Your task to perform on an android device: Go to calendar. Show me events next week Image 0: 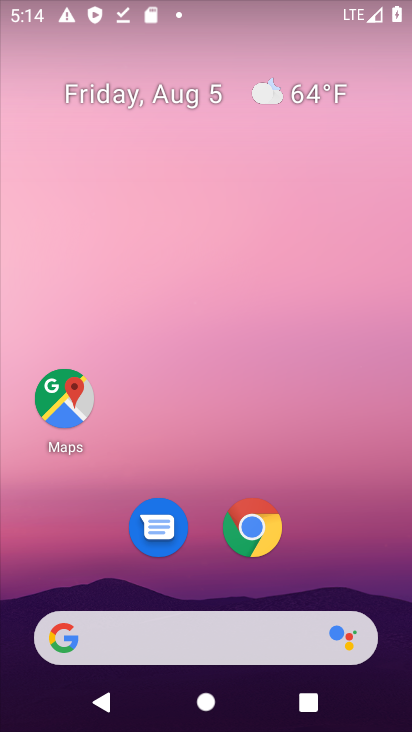
Step 0: drag from (210, 565) to (252, 144)
Your task to perform on an android device: Go to calendar. Show me events next week Image 1: 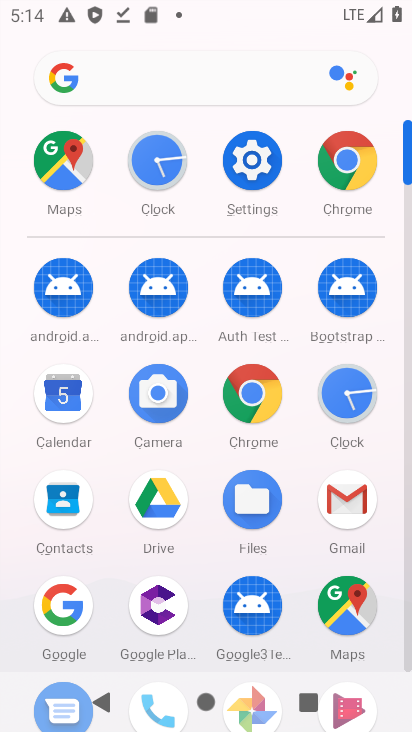
Step 1: click (64, 395)
Your task to perform on an android device: Go to calendar. Show me events next week Image 2: 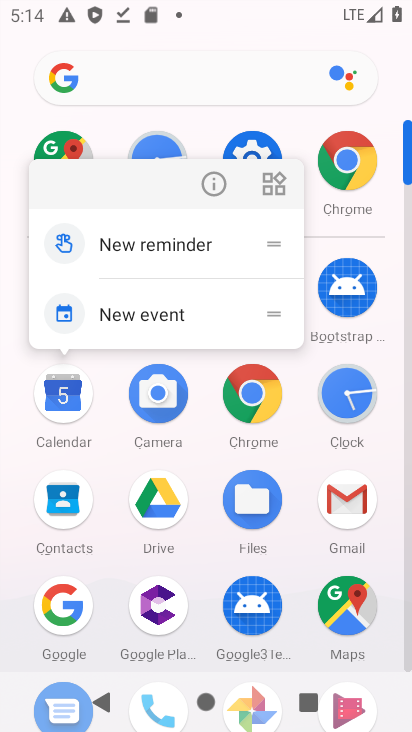
Step 2: click (192, 199)
Your task to perform on an android device: Go to calendar. Show me events next week Image 3: 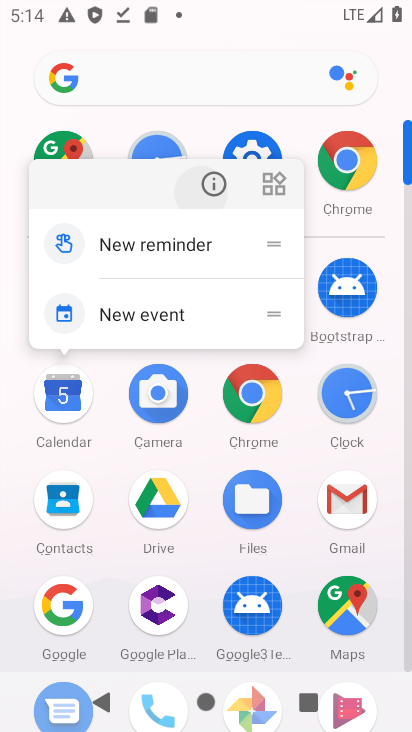
Step 3: click (198, 195)
Your task to perform on an android device: Go to calendar. Show me events next week Image 4: 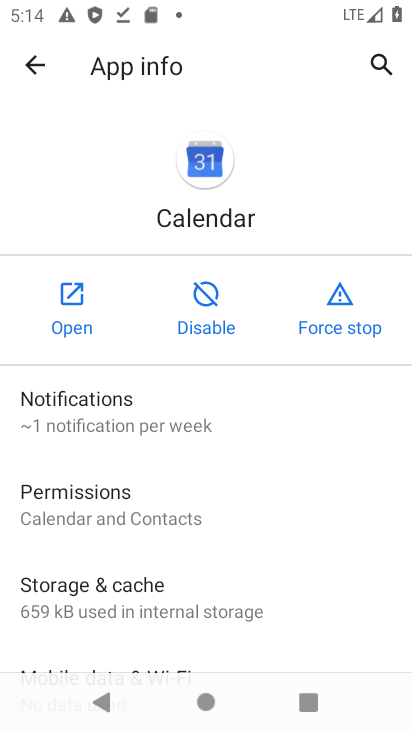
Step 4: click (78, 294)
Your task to perform on an android device: Go to calendar. Show me events next week Image 5: 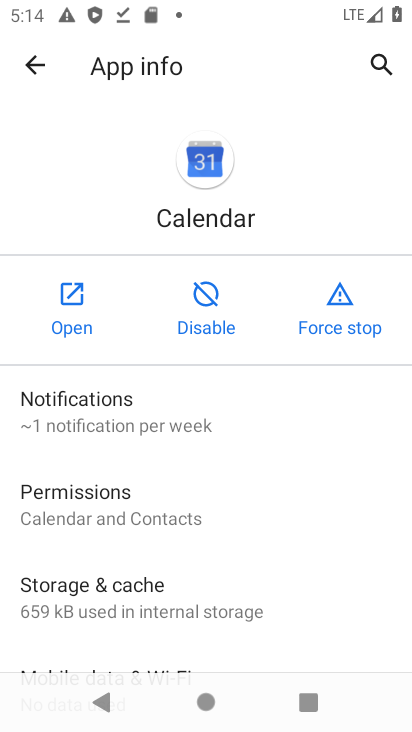
Step 5: click (77, 293)
Your task to perform on an android device: Go to calendar. Show me events next week Image 6: 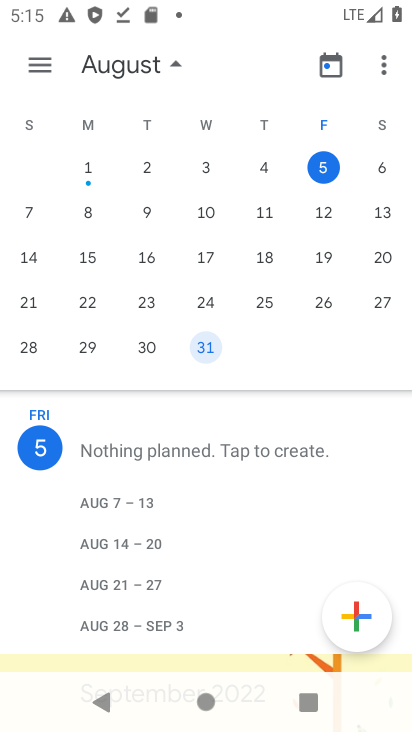
Step 6: click (191, 207)
Your task to perform on an android device: Go to calendar. Show me events next week Image 7: 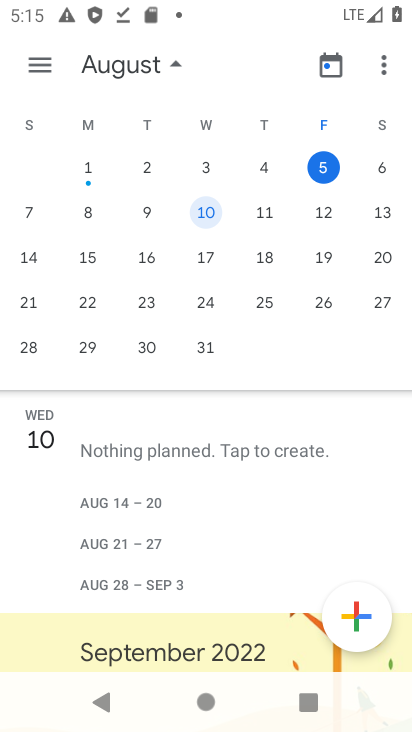
Step 7: task complete